Your task to perform on an android device: Open my contact list Image 0: 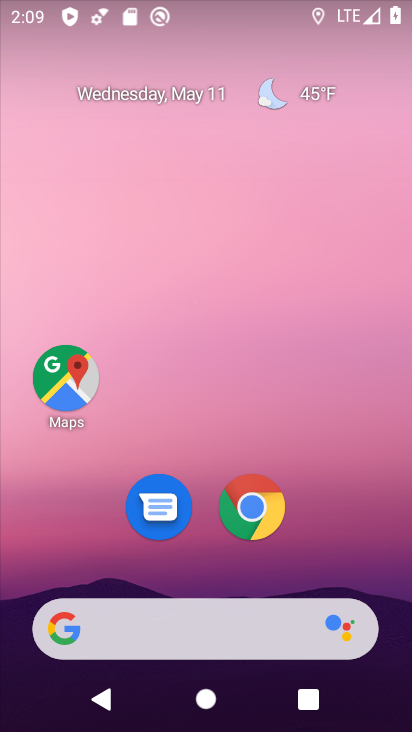
Step 0: drag from (299, 517) to (228, 31)
Your task to perform on an android device: Open my contact list Image 1: 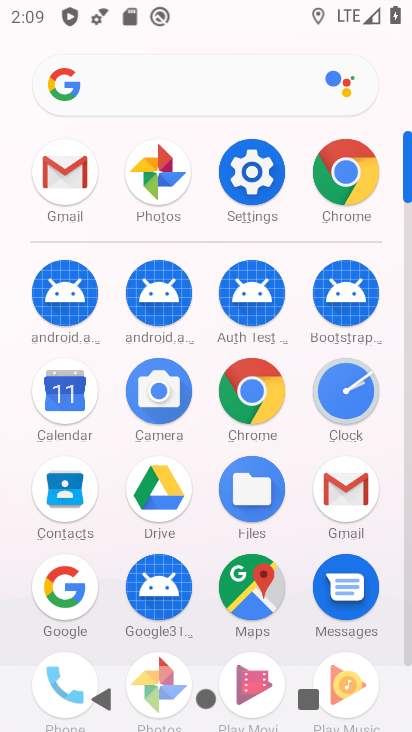
Step 1: drag from (11, 531) to (11, 155)
Your task to perform on an android device: Open my contact list Image 2: 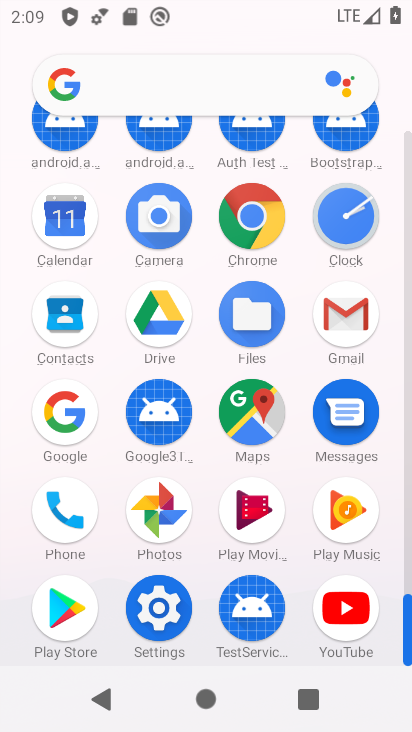
Step 2: click (63, 314)
Your task to perform on an android device: Open my contact list Image 3: 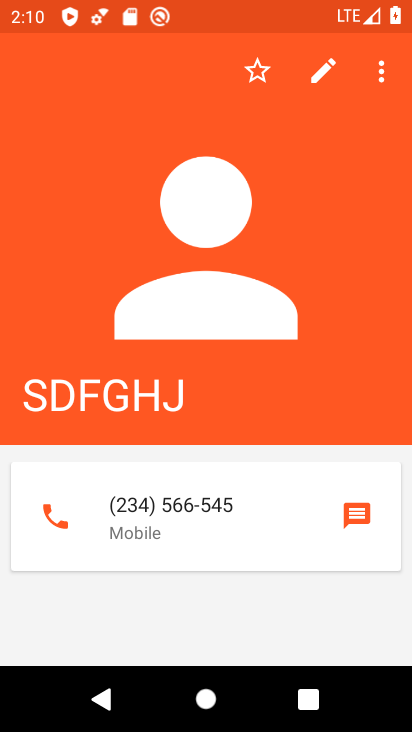
Step 3: task complete